Your task to perform on an android device: Open battery settings Image 0: 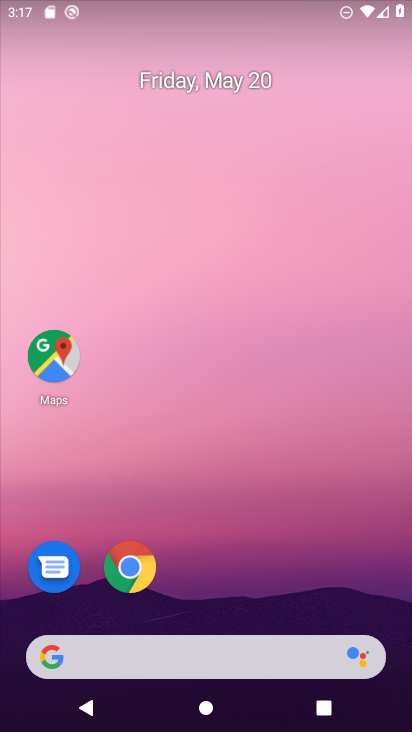
Step 0: drag from (231, 722) to (235, 135)
Your task to perform on an android device: Open battery settings Image 1: 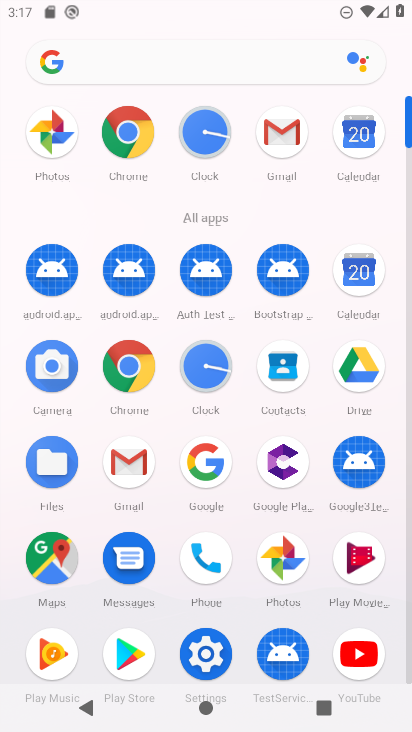
Step 1: click (205, 647)
Your task to perform on an android device: Open battery settings Image 2: 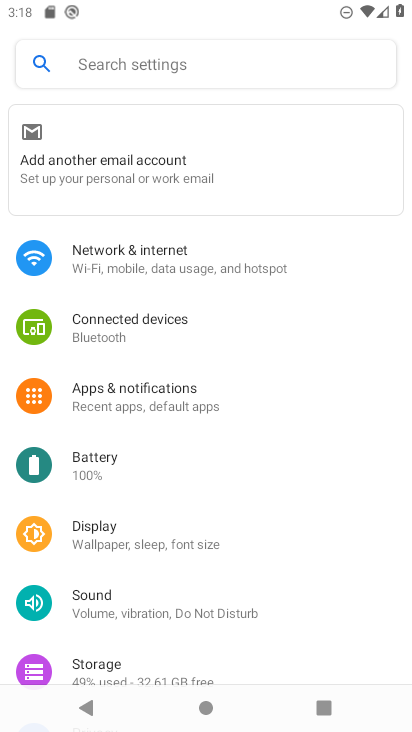
Step 2: click (94, 464)
Your task to perform on an android device: Open battery settings Image 3: 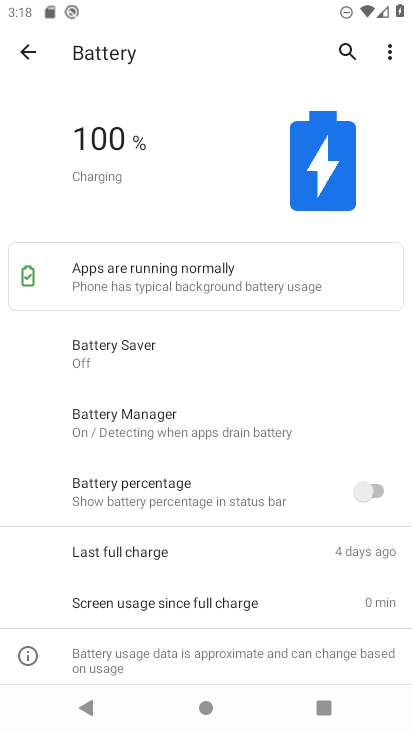
Step 3: task complete